Your task to perform on an android device: change the clock display to digital Image 0: 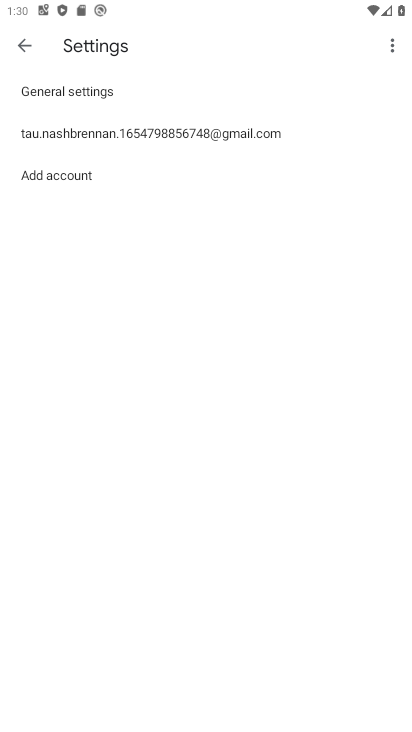
Step 0: press home button
Your task to perform on an android device: change the clock display to digital Image 1: 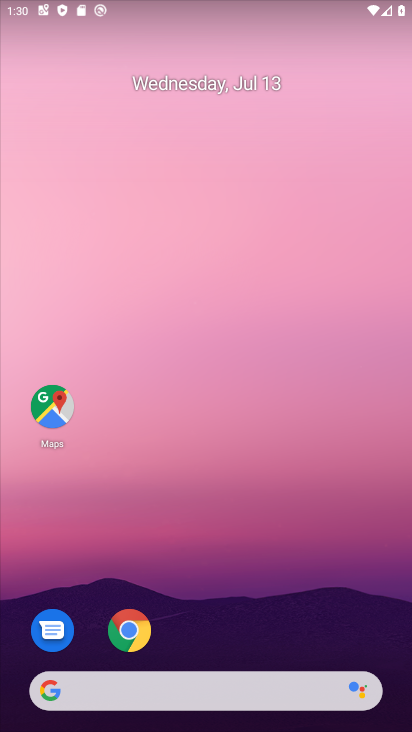
Step 1: drag from (353, 626) to (351, 71)
Your task to perform on an android device: change the clock display to digital Image 2: 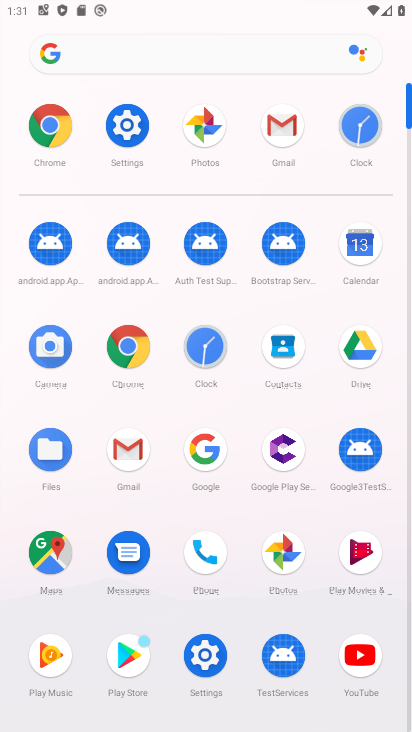
Step 2: click (215, 352)
Your task to perform on an android device: change the clock display to digital Image 3: 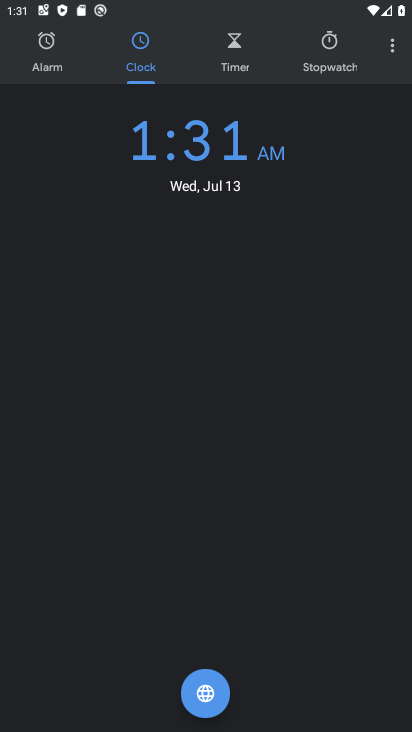
Step 3: click (393, 55)
Your task to perform on an android device: change the clock display to digital Image 4: 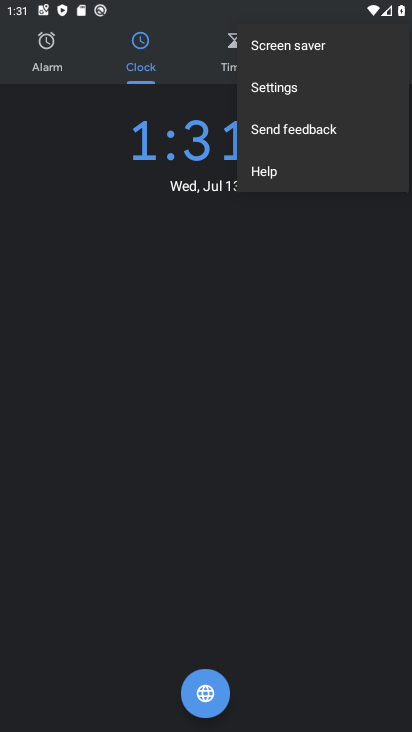
Step 4: click (314, 89)
Your task to perform on an android device: change the clock display to digital Image 5: 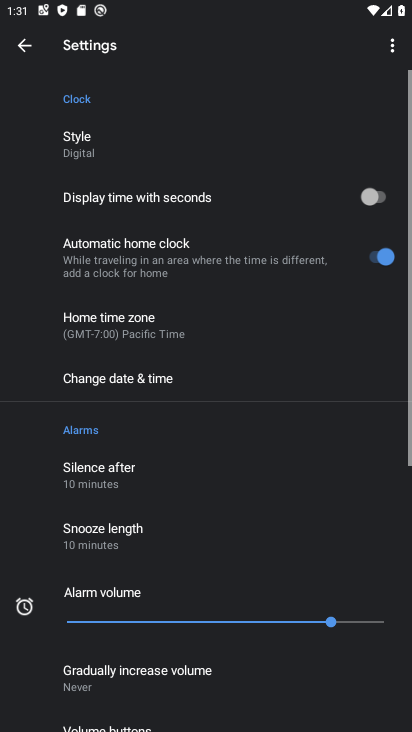
Step 5: drag from (303, 398) to (295, 265)
Your task to perform on an android device: change the clock display to digital Image 6: 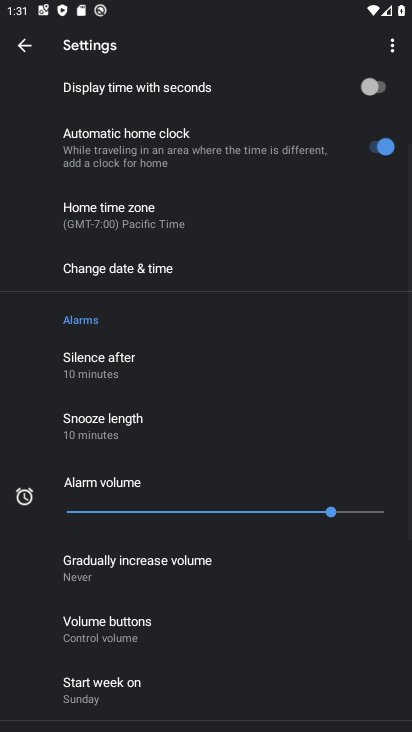
Step 6: drag from (288, 416) to (266, 265)
Your task to perform on an android device: change the clock display to digital Image 7: 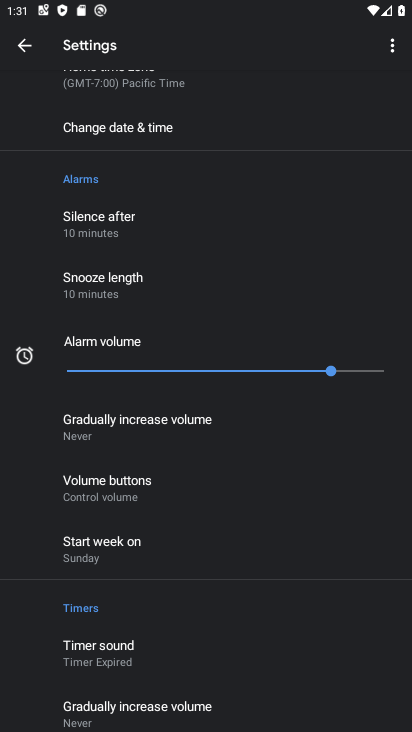
Step 7: drag from (283, 478) to (284, 240)
Your task to perform on an android device: change the clock display to digital Image 8: 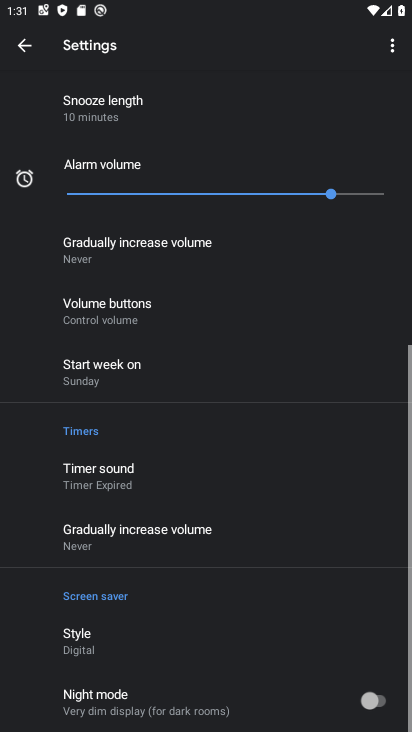
Step 8: drag from (286, 160) to (279, 369)
Your task to perform on an android device: change the clock display to digital Image 9: 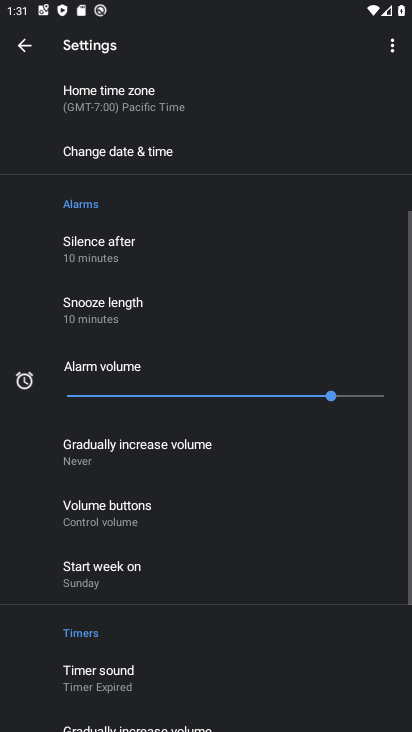
Step 9: drag from (280, 209) to (295, 497)
Your task to perform on an android device: change the clock display to digital Image 10: 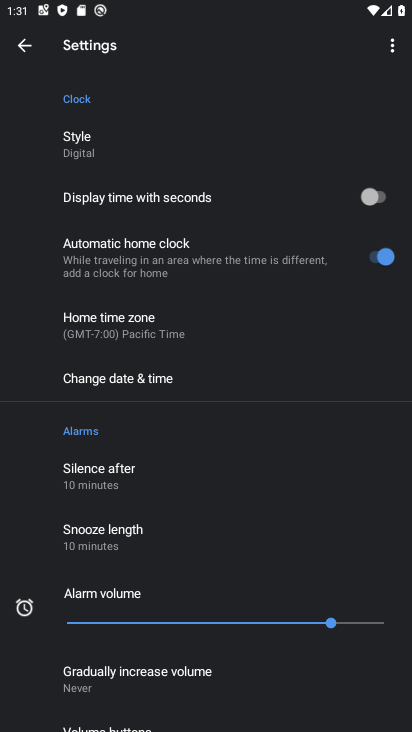
Step 10: click (109, 147)
Your task to perform on an android device: change the clock display to digital Image 11: 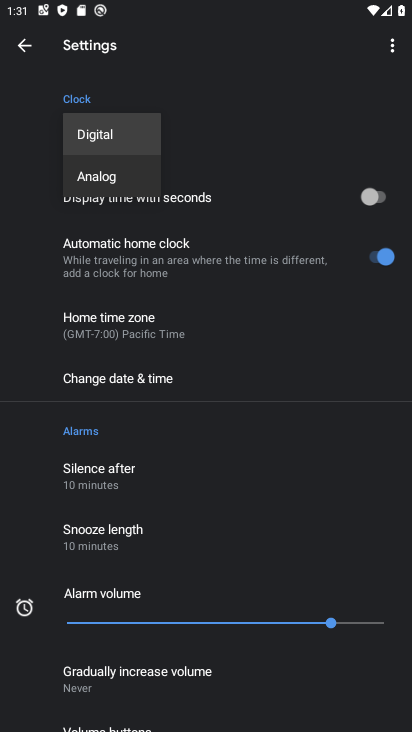
Step 11: click (109, 174)
Your task to perform on an android device: change the clock display to digital Image 12: 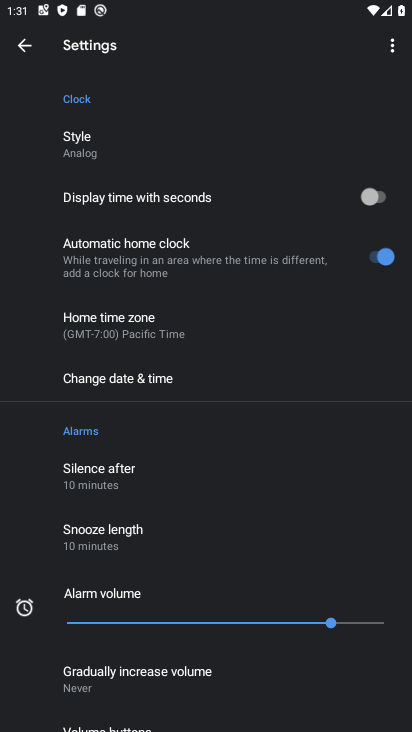
Step 12: task complete